Your task to perform on an android device: snooze an email in the gmail app Image 0: 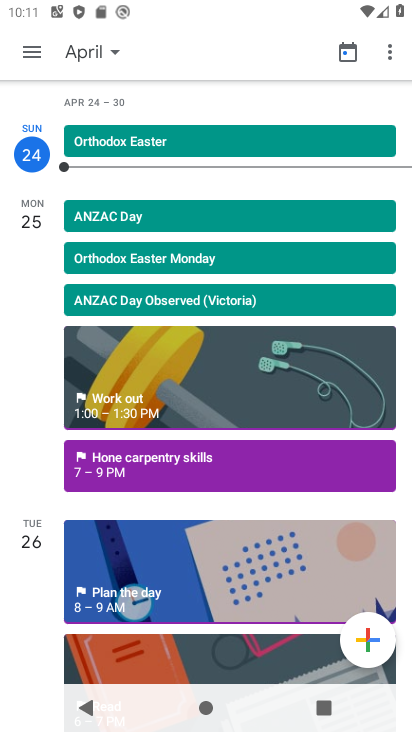
Step 0: press home button
Your task to perform on an android device: snooze an email in the gmail app Image 1: 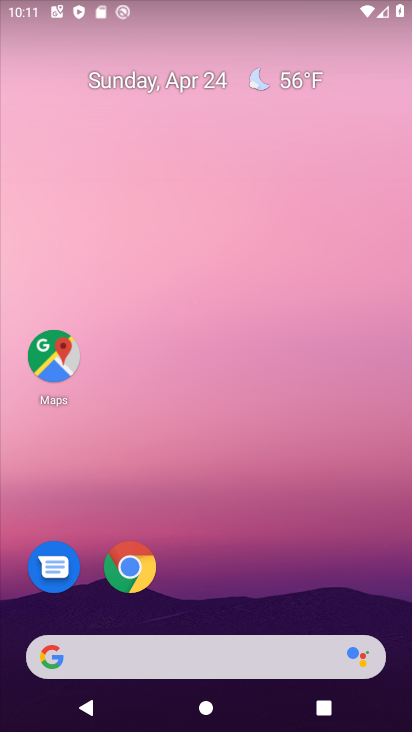
Step 1: drag from (177, 652) to (302, 83)
Your task to perform on an android device: snooze an email in the gmail app Image 2: 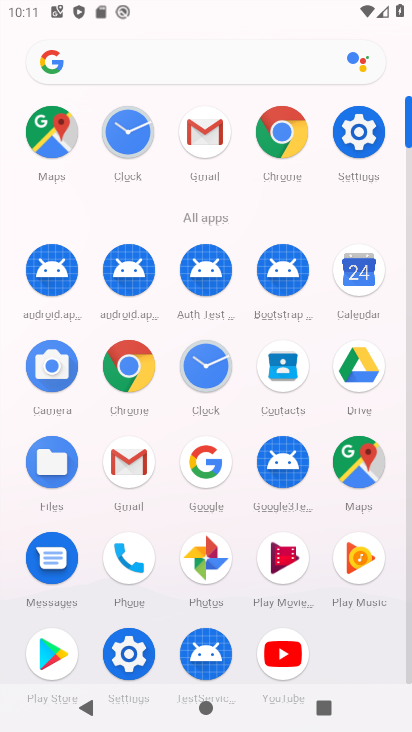
Step 2: click (207, 146)
Your task to perform on an android device: snooze an email in the gmail app Image 3: 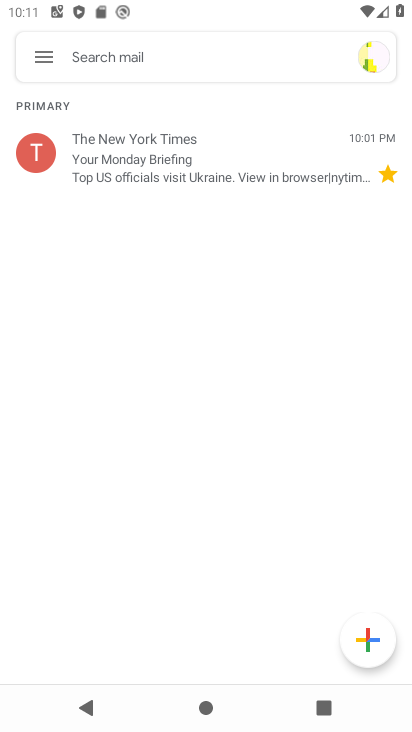
Step 3: click (43, 159)
Your task to perform on an android device: snooze an email in the gmail app Image 4: 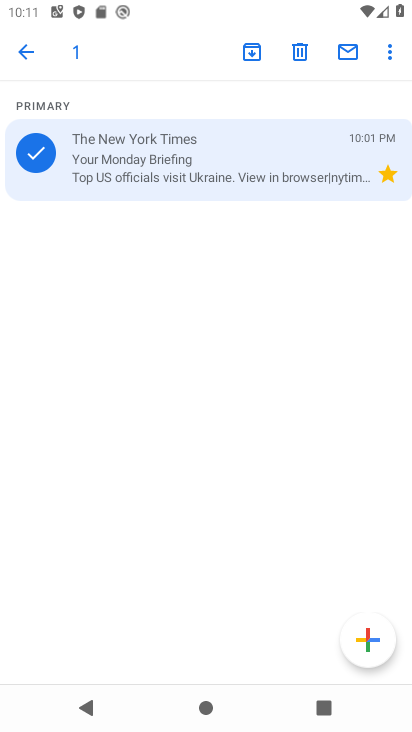
Step 4: click (391, 52)
Your task to perform on an android device: snooze an email in the gmail app Image 5: 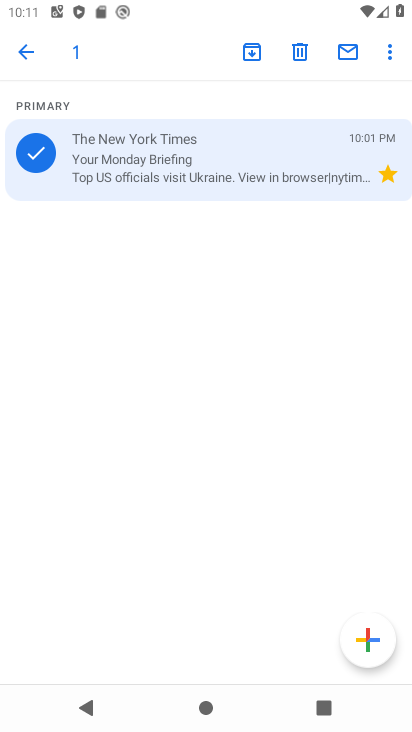
Step 5: click (392, 54)
Your task to perform on an android device: snooze an email in the gmail app Image 6: 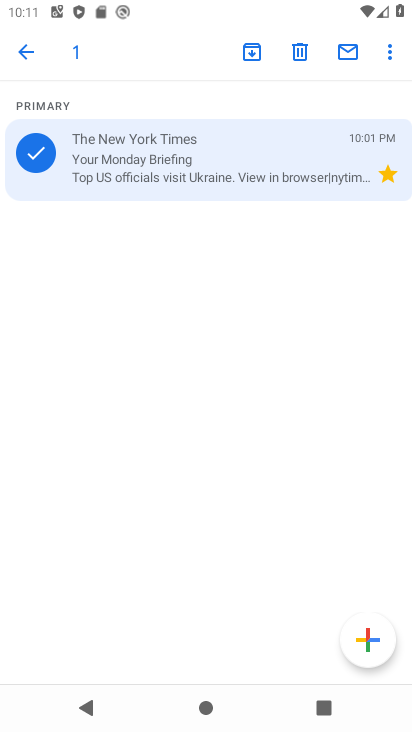
Step 6: click (386, 58)
Your task to perform on an android device: snooze an email in the gmail app Image 7: 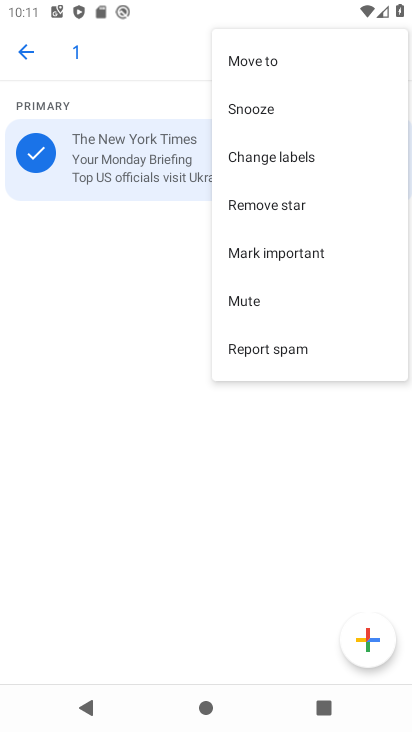
Step 7: click (240, 108)
Your task to perform on an android device: snooze an email in the gmail app Image 8: 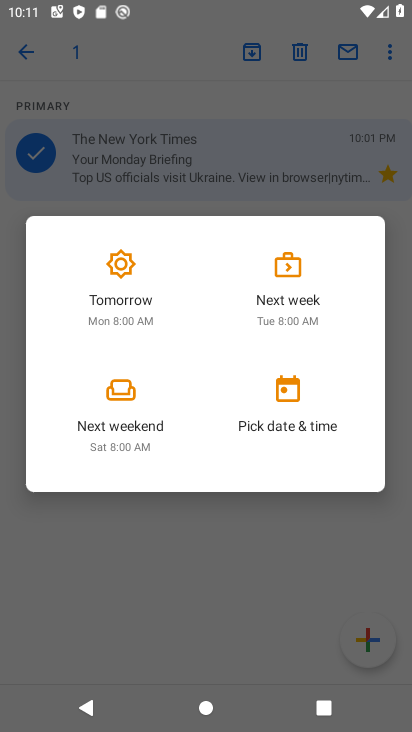
Step 8: click (123, 313)
Your task to perform on an android device: snooze an email in the gmail app Image 9: 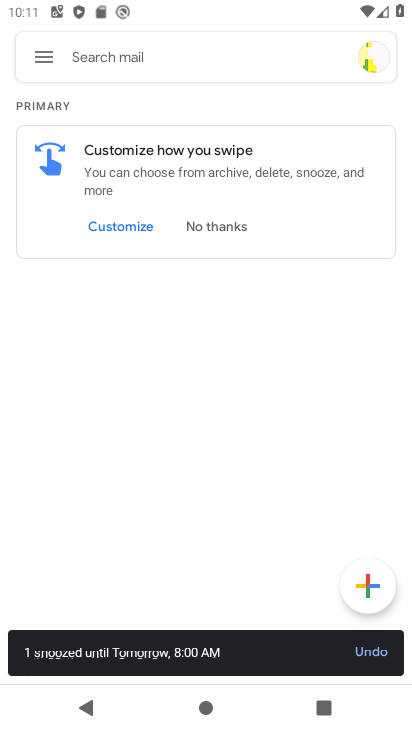
Step 9: task complete